Your task to perform on an android device: See recent photos Image 0: 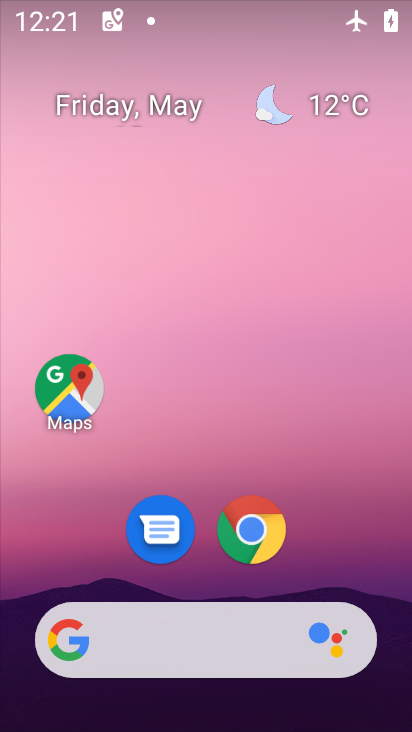
Step 0: drag from (297, 472) to (280, 248)
Your task to perform on an android device: See recent photos Image 1: 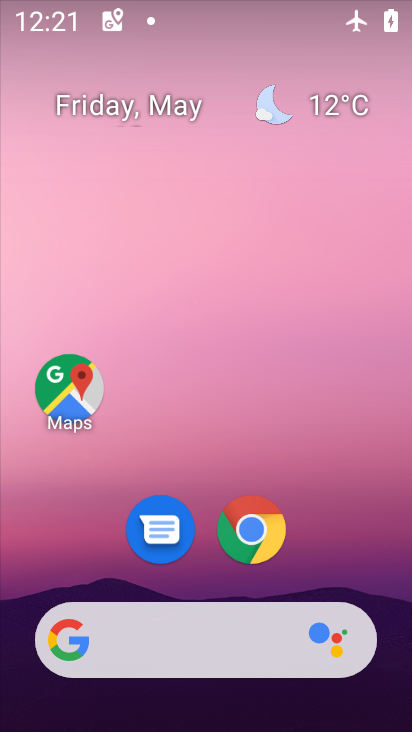
Step 1: drag from (307, 552) to (237, 117)
Your task to perform on an android device: See recent photos Image 2: 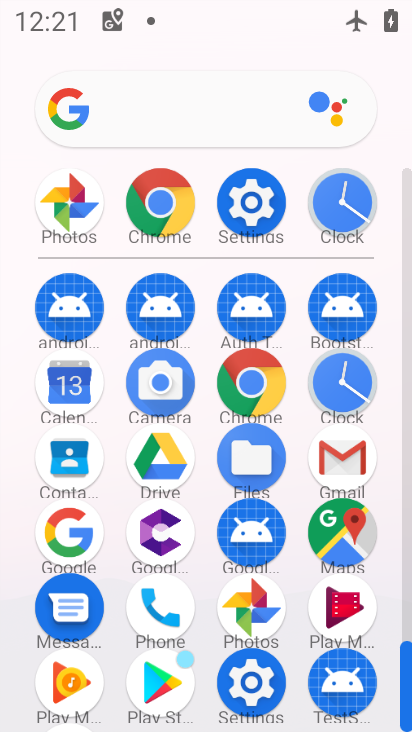
Step 2: click (239, 602)
Your task to perform on an android device: See recent photos Image 3: 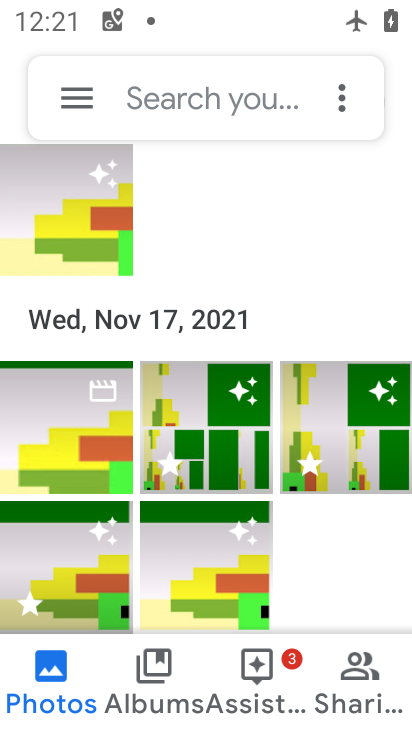
Step 3: click (114, 414)
Your task to perform on an android device: See recent photos Image 4: 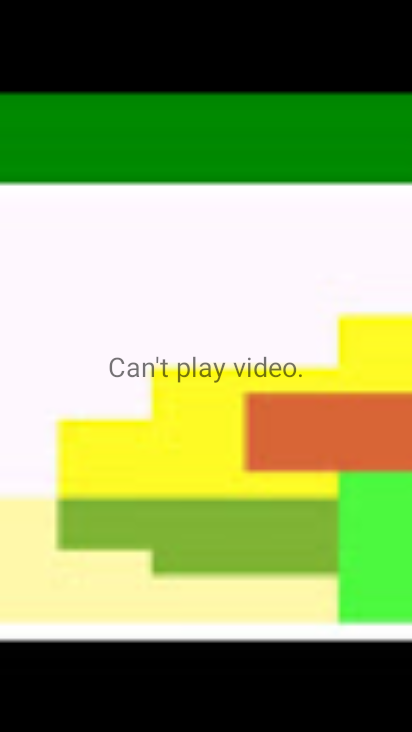
Step 4: task complete